Your task to perform on an android device: turn off translation in the chrome app Image 0: 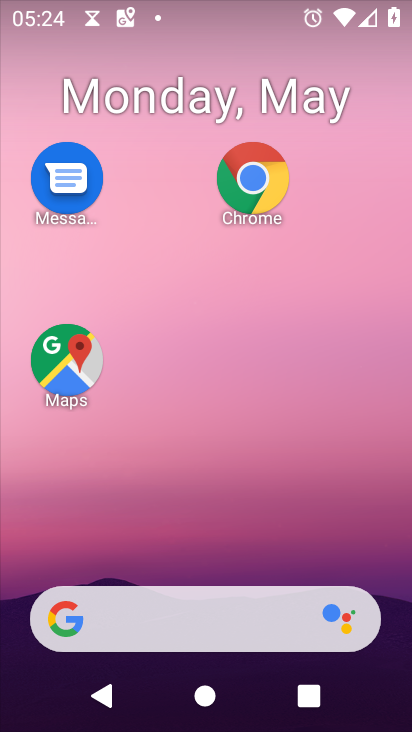
Step 0: click (250, 185)
Your task to perform on an android device: turn off translation in the chrome app Image 1: 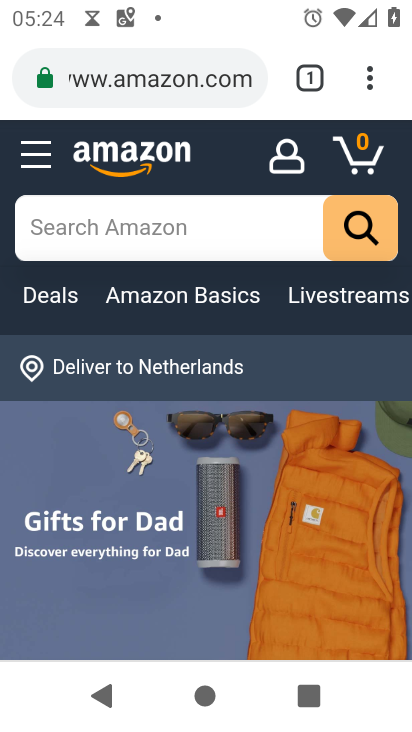
Step 1: click (363, 82)
Your task to perform on an android device: turn off translation in the chrome app Image 2: 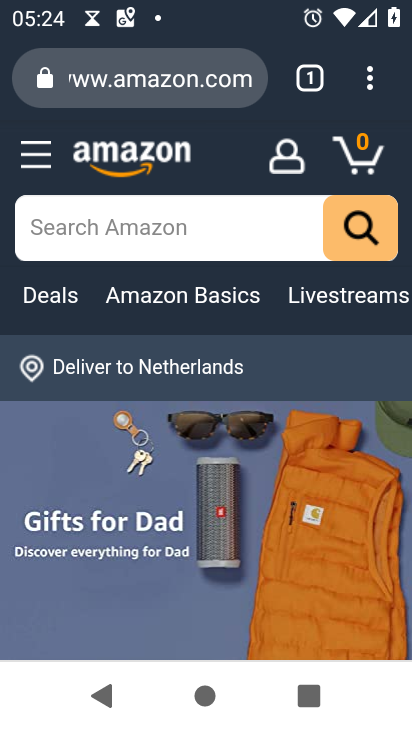
Step 2: click (365, 83)
Your task to perform on an android device: turn off translation in the chrome app Image 3: 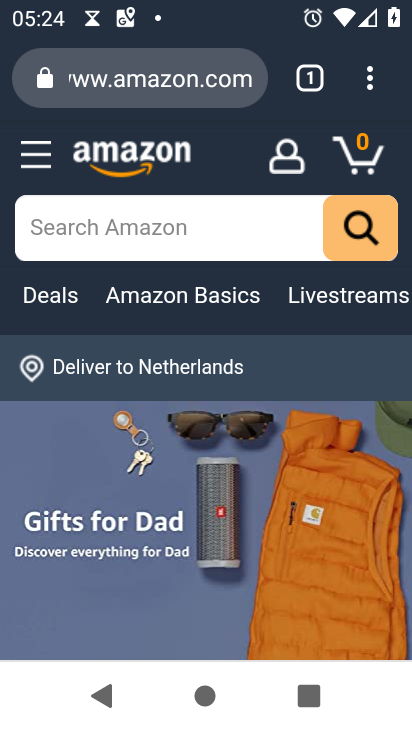
Step 3: click (371, 78)
Your task to perform on an android device: turn off translation in the chrome app Image 4: 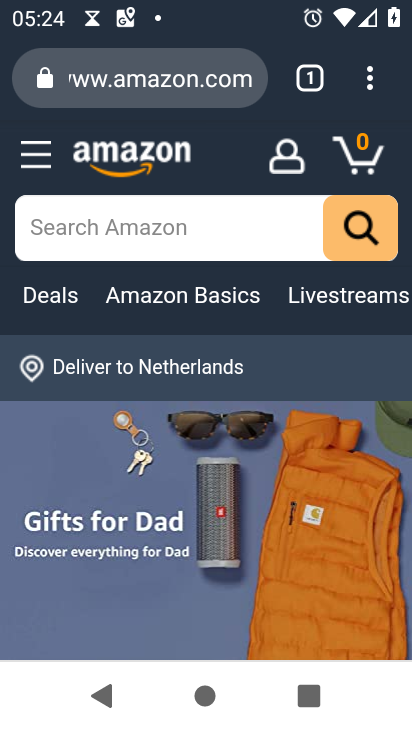
Step 4: click (372, 84)
Your task to perform on an android device: turn off translation in the chrome app Image 5: 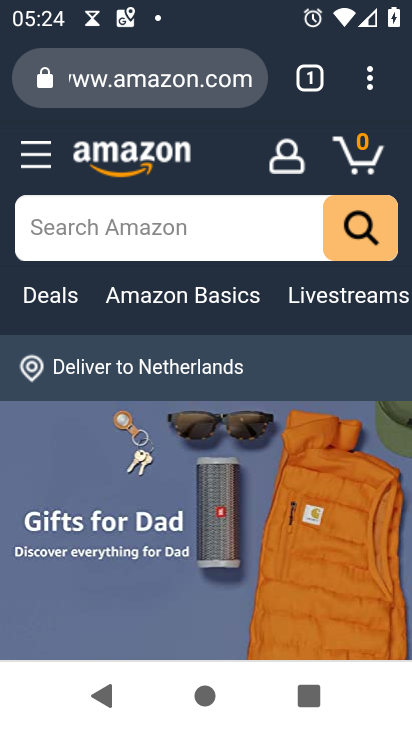
Step 5: click (366, 88)
Your task to perform on an android device: turn off translation in the chrome app Image 6: 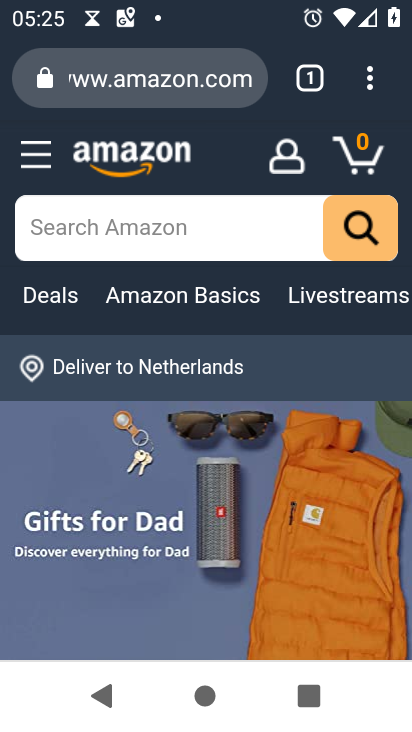
Step 6: click (374, 91)
Your task to perform on an android device: turn off translation in the chrome app Image 7: 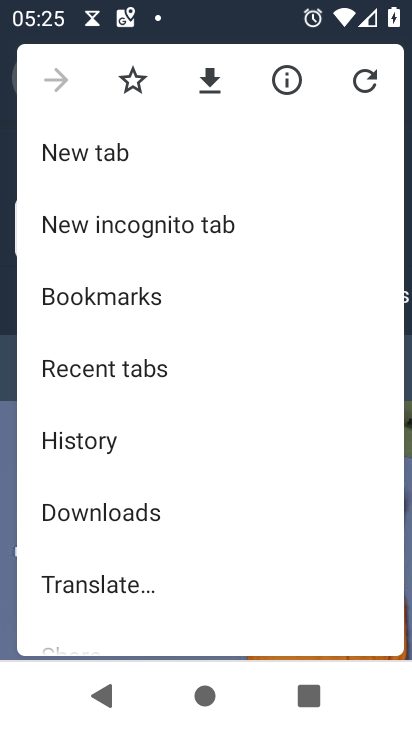
Step 7: drag from (157, 554) to (154, 88)
Your task to perform on an android device: turn off translation in the chrome app Image 8: 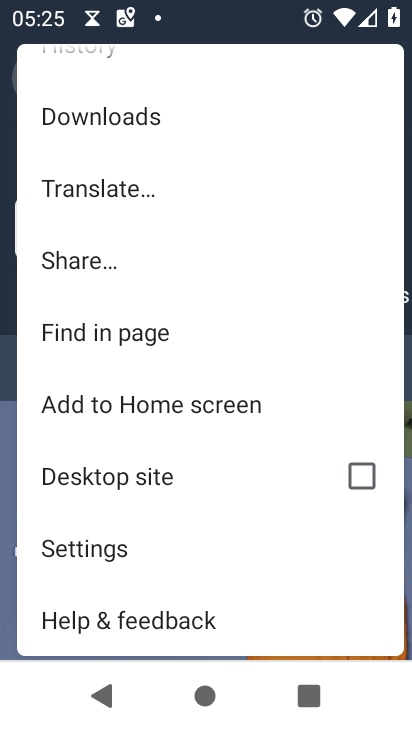
Step 8: click (78, 555)
Your task to perform on an android device: turn off translation in the chrome app Image 9: 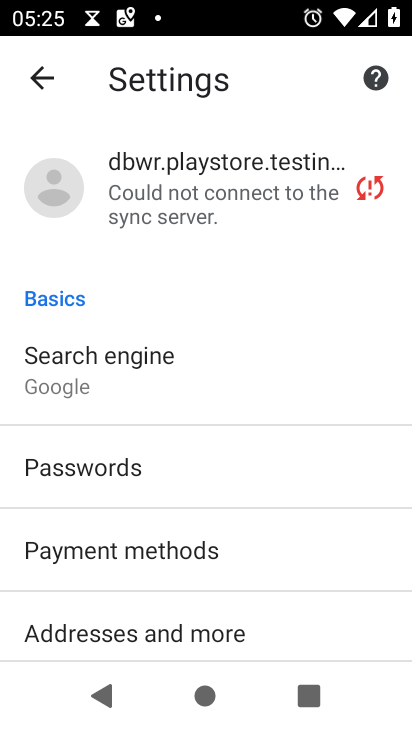
Step 9: drag from (119, 619) to (226, 17)
Your task to perform on an android device: turn off translation in the chrome app Image 10: 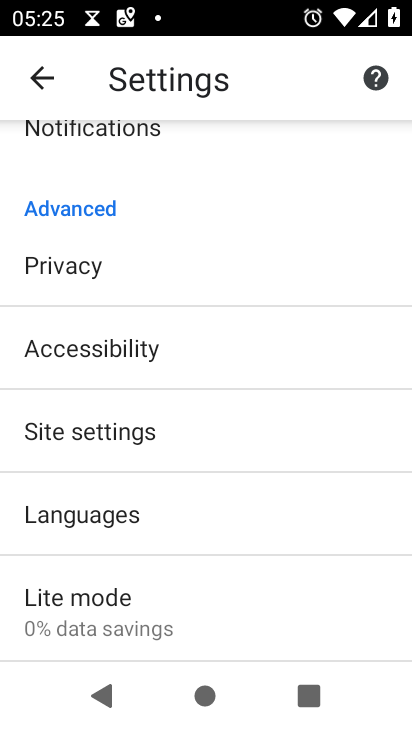
Step 10: click (90, 521)
Your task to perform on an android device: turn off translation in the chrome app Image 11: 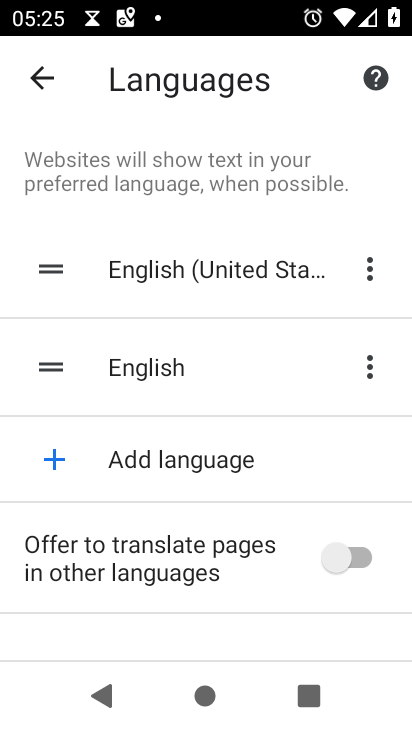
Step 11: task complete